Your task to perform on an android device: Open Maps and search for coffee Image 0: 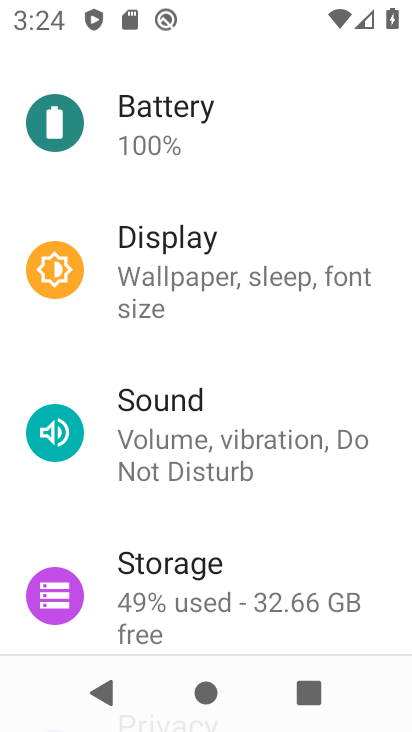
Step 0: press home button
Your task to perform on an android device: Open Maps and search for coffee Image 1: 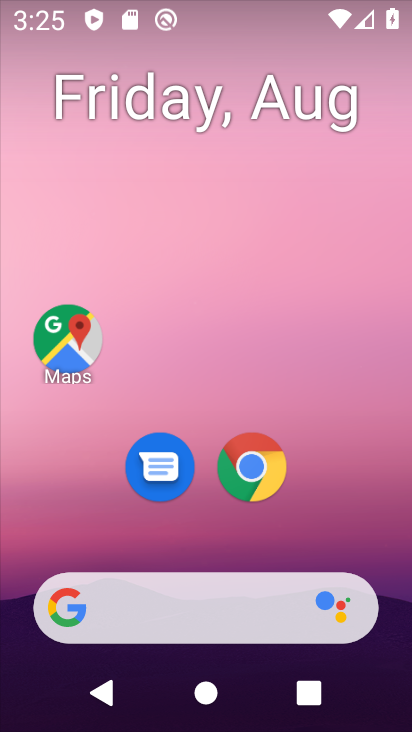
Step 1: drag from (319, 552) to (253, 11)
Your task to perform on an android device: Open Maps and search for coffee Image 2: 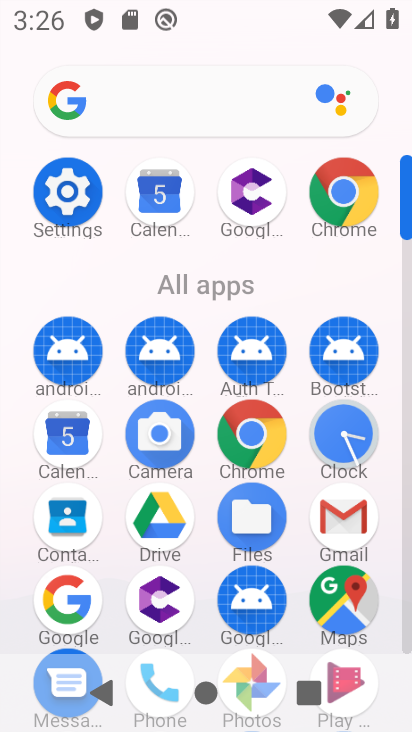
Step 2: click (337, 603)
Your task to perform on an android device: Open Maps and search for coffee Image 3: 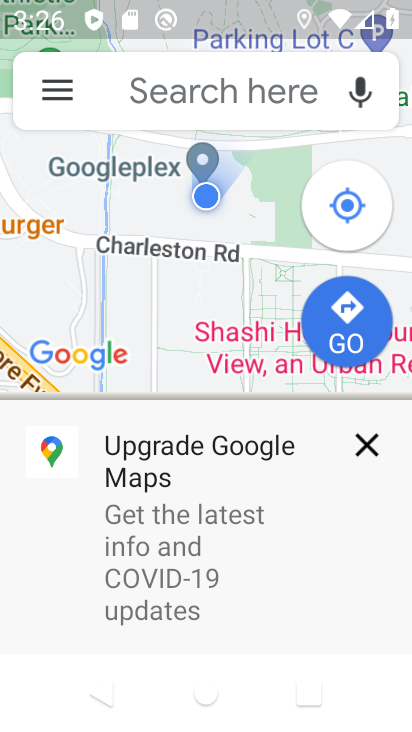
Step 3: click (195, 70)
Your task to perform on an android device: Open Maps and search for coffee Image 4: 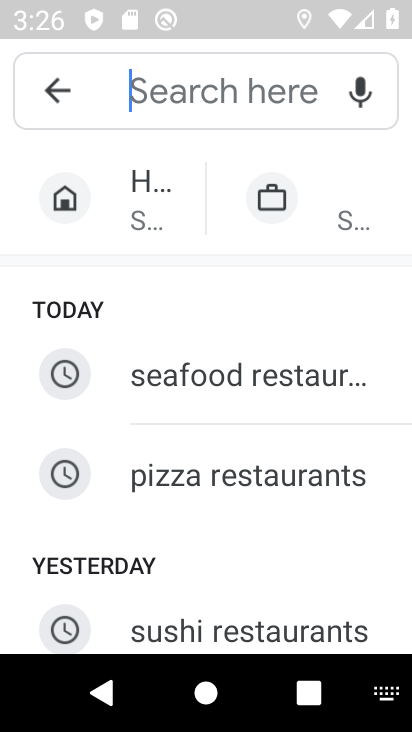
Step 4: type "coffee"
Your task to perform on an android device: Open Maps and search for coffee Image 5: 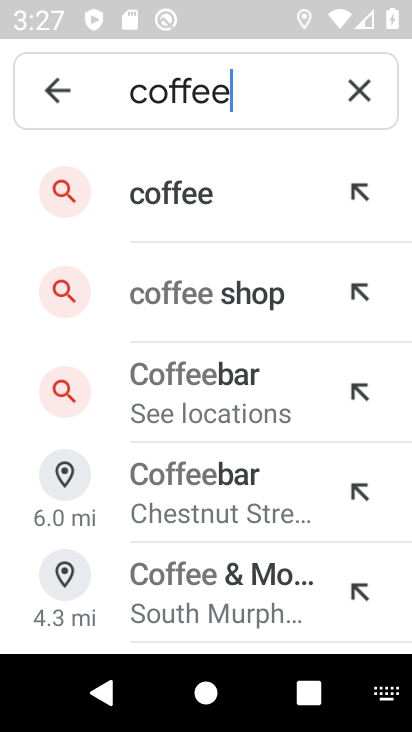
Step 5: click (201, 195)
Your task to perform on an android device: Open Maps and search for coffee Image 6: 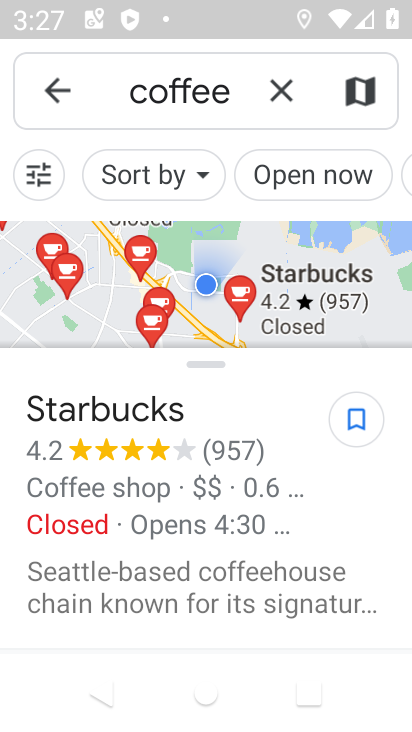
Step 6: task complete